Your task to perform on an android device: Open Google Chrome and open the bookmarks view Image 0: 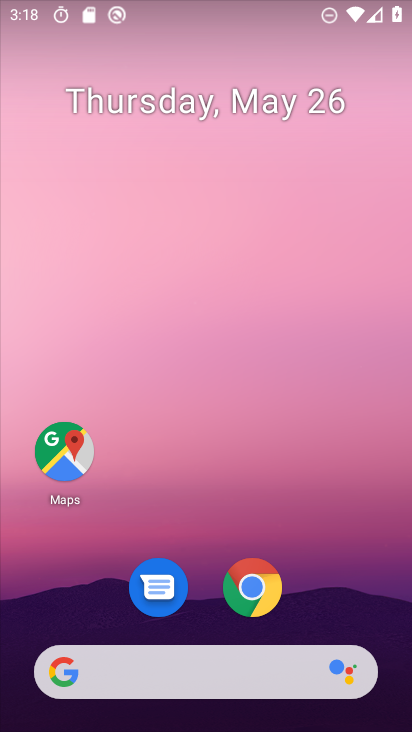
Step 0: click (257, 577)
Your task to perform on an android device: Open Google Chrome and open the bookmarks view Image 1: 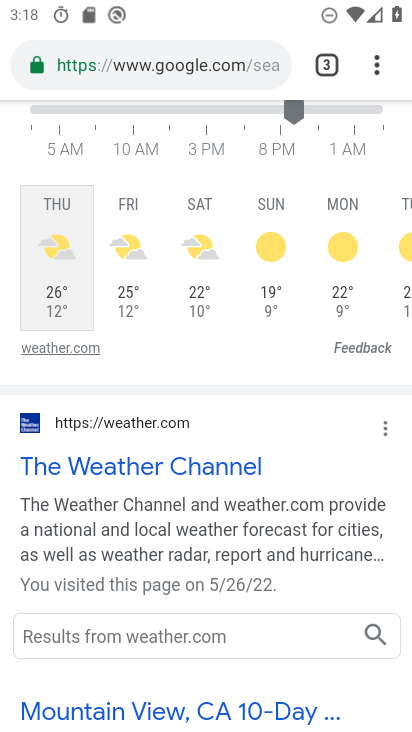
Step 1: task complete